Your task to perform on an android device: check battery use Image 0: 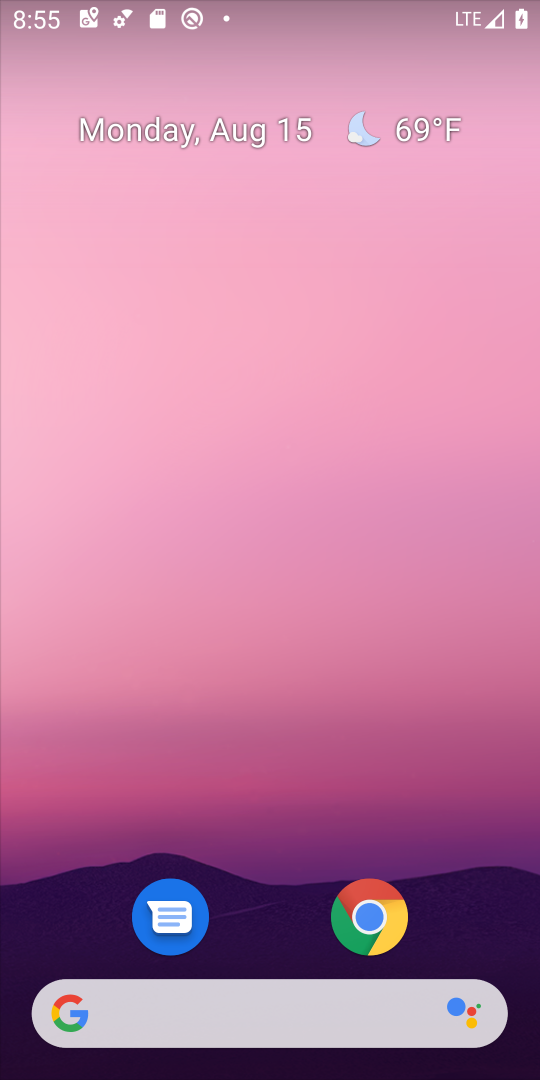
Step 0: drag from (335, 840) to (412, 31)
Your task to perform on an android device: check battery use Image 1: 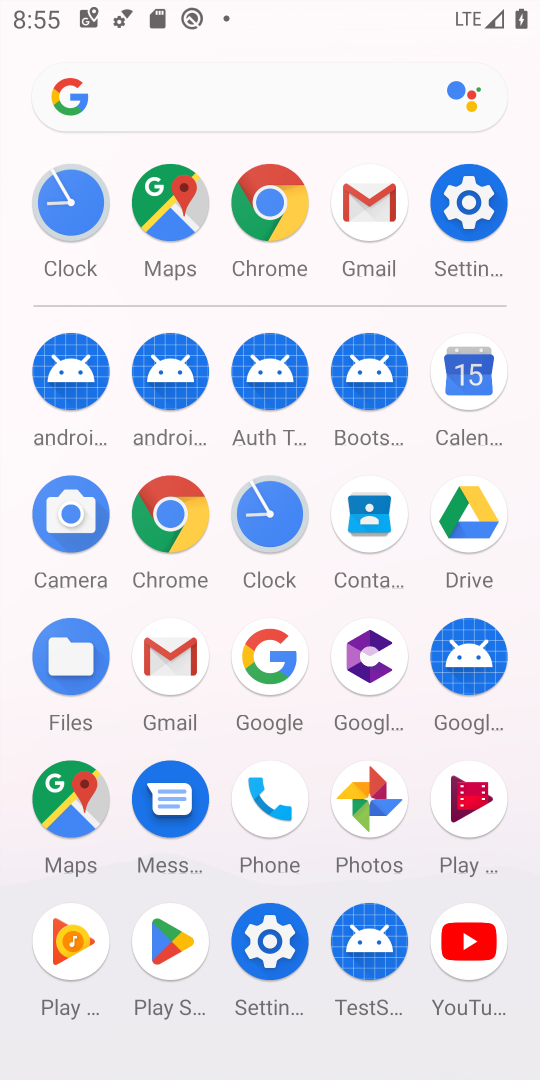
Step 1: click (464, 197)
Your task to perform on an android device: check battery use Image 2: 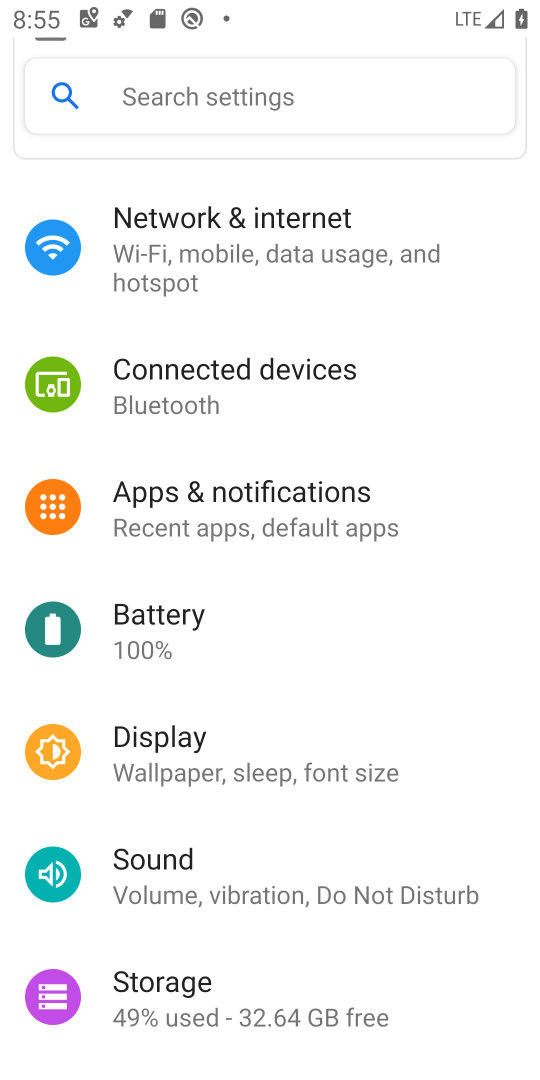
Step 2: click (274, 626)
Your task to perform on an android device: check battery use Image 3: 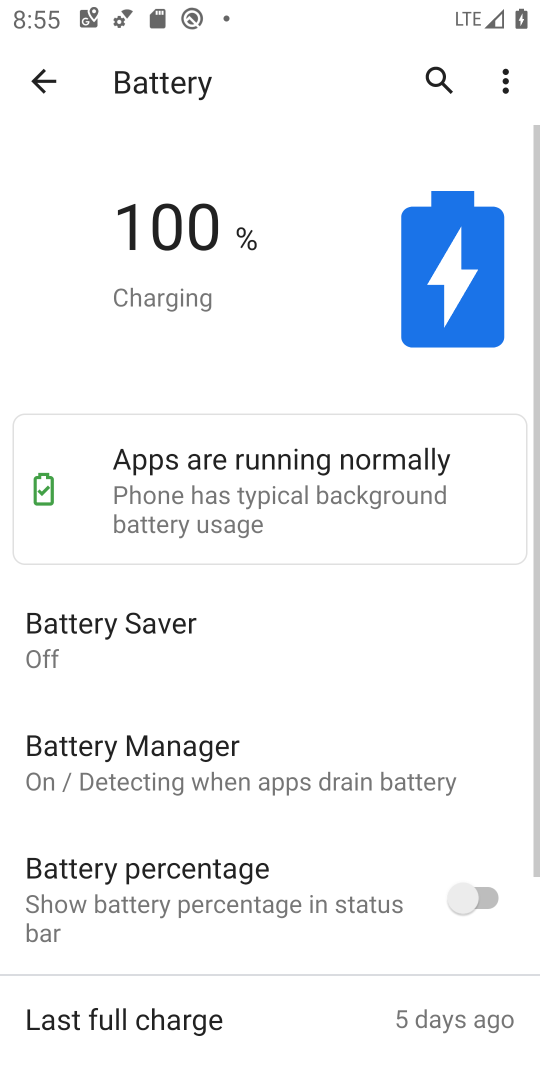
Step 3: click (502, 81)
Your task to perform on an android device: check battery use Image 4: 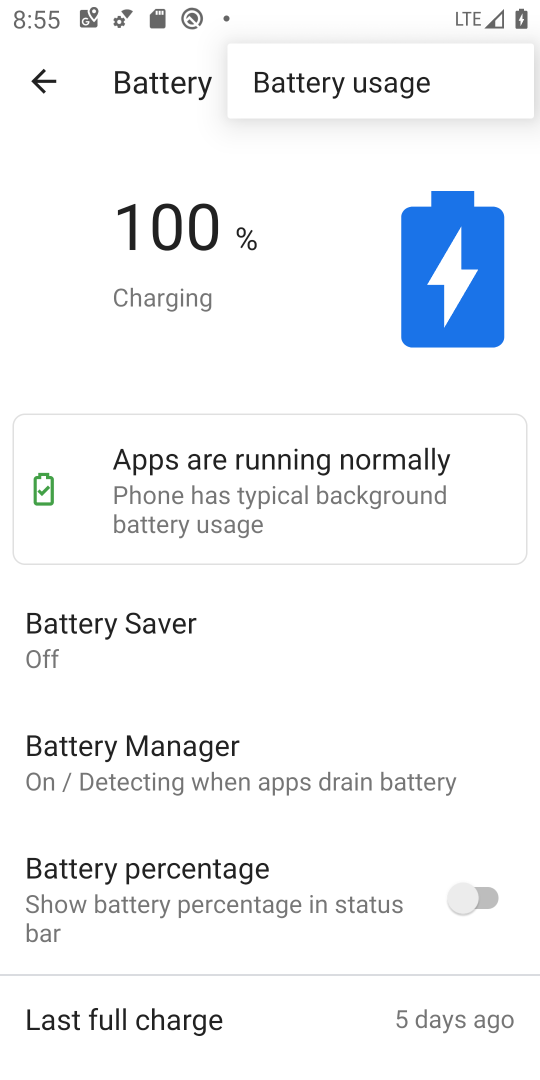
Step 4: click (377, 77)
Your task to perform on an android device: check battery use Image 5: 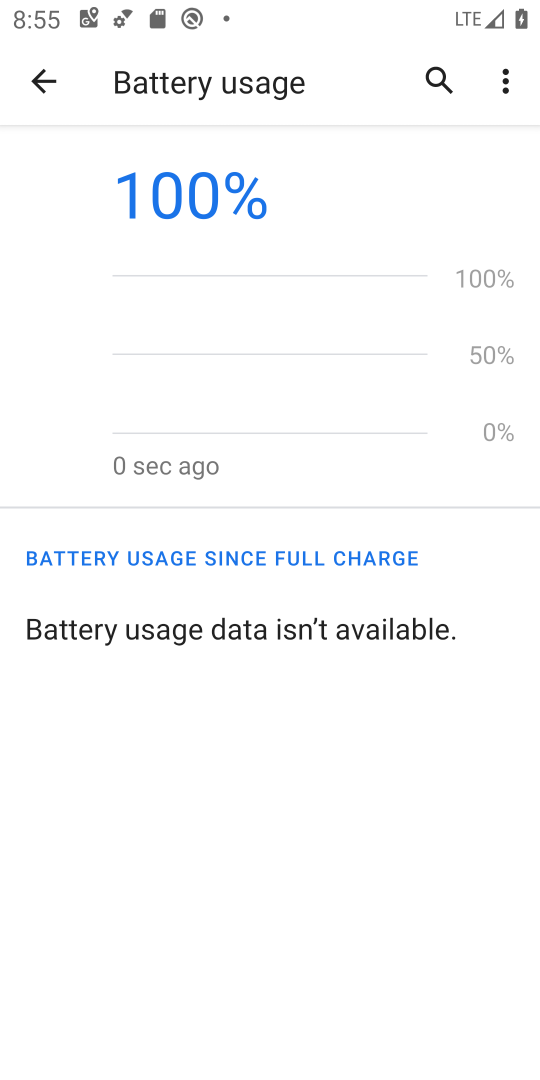
Step 5: task complete